Your task to perform on an android device: uninstall "Facebook Messenger" Image 0: 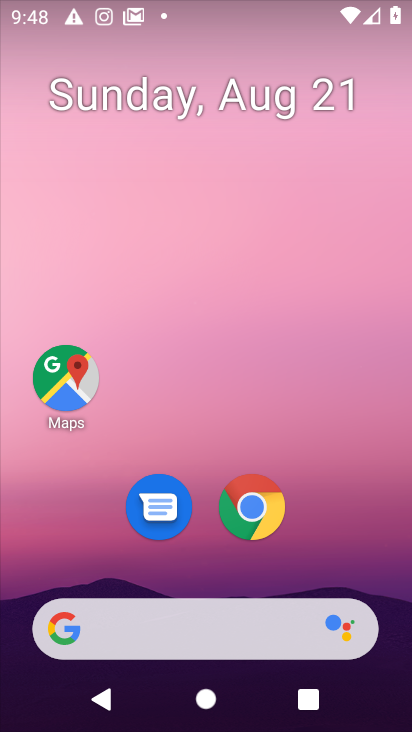
Step 0: drag from (215, 389) to (241, 23)
Your task to perform on an android device: uninstall "Facebook Messenger" Image 1: 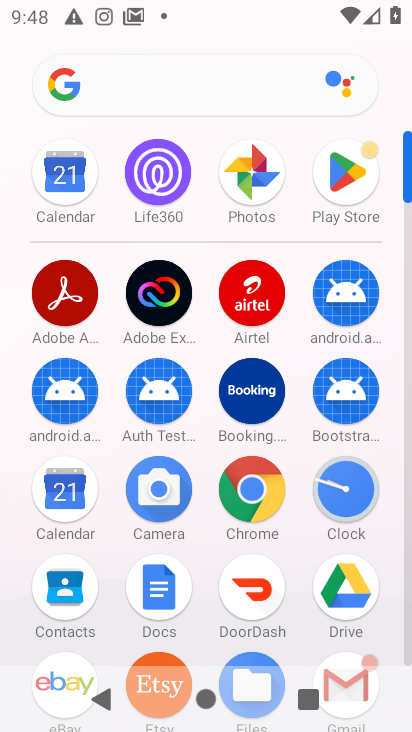
Step 1: click (352, 187)
Your task to perform on an android device: uninstall "Facebook Messenger" Image 2: 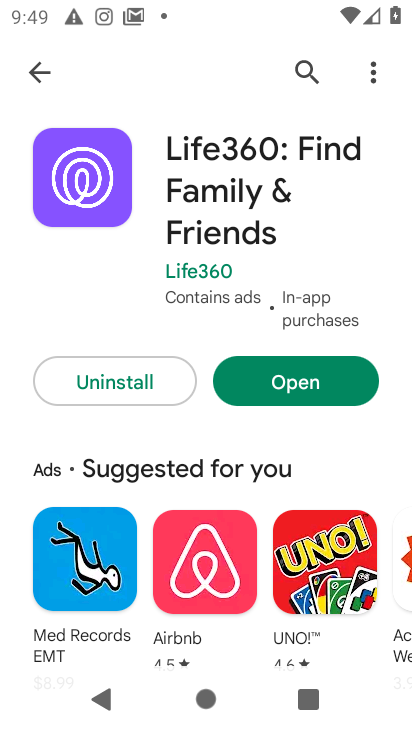
Step 2: click (34, 72)
Your task to perform on an android device: uninstall "Facebook Messenger" Image 3: 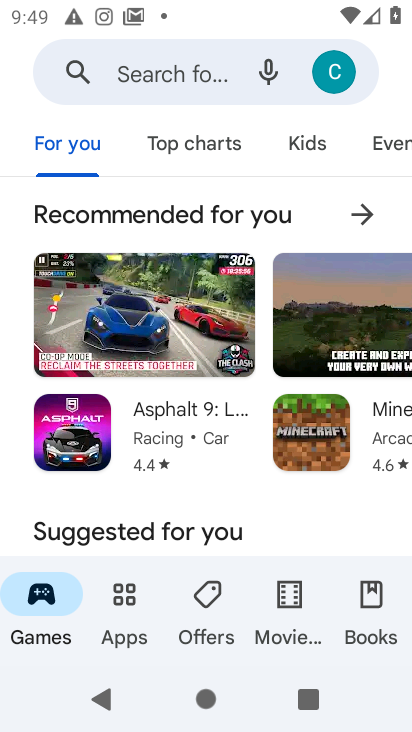
Step 3: click (157, 68)
Your task to perform on an android device: uninstall "Facebook Messenger" Image 4: 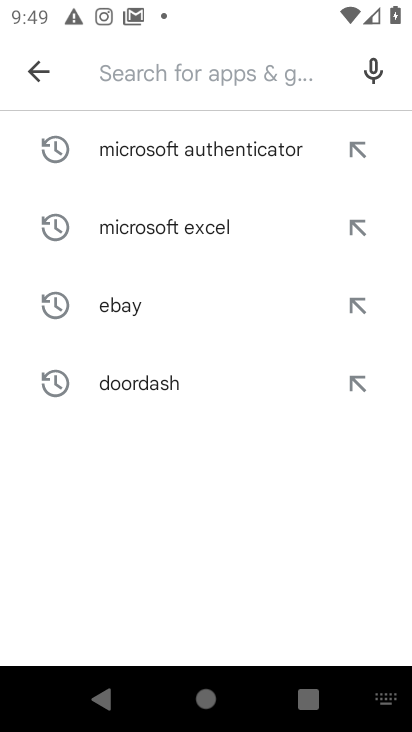
Step 4: type "Facebook Messenger"
Your task to perform on an android device: uninstall "Facebook Messenger" Image 5: 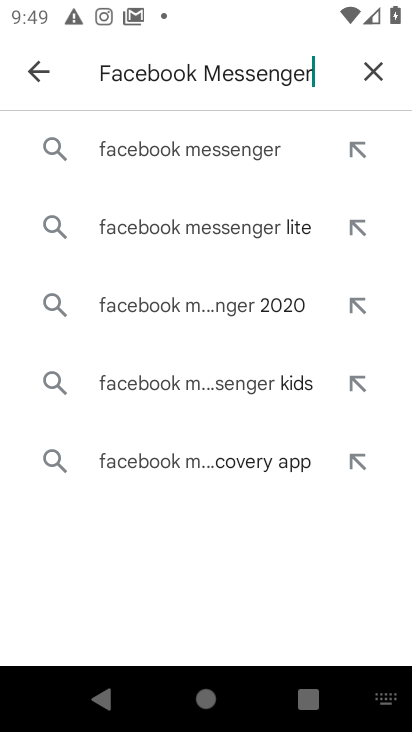
Step 5: click (175, 152)
Your task to perform on an android device: uninstall "Facebook Messenger" Image 6: 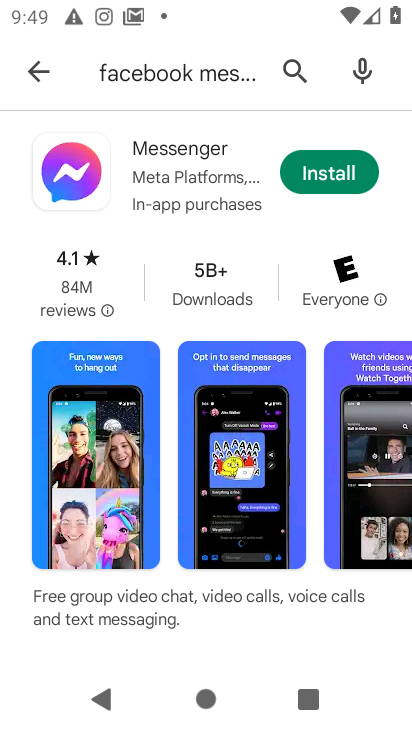
Step 6: click (322, 177)
Your task to perform on an android device: uninstall "Facebook Messenger" Image 7: 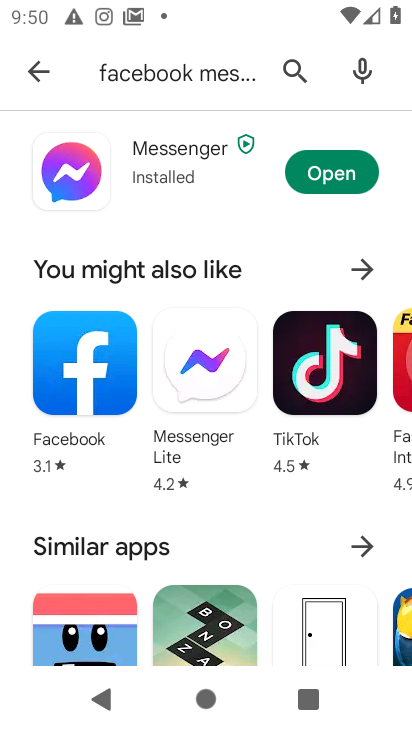
Step 7: click (181, 167)
Your task to perform on an android device: uninstall "Facebook Messenger" Image 8: 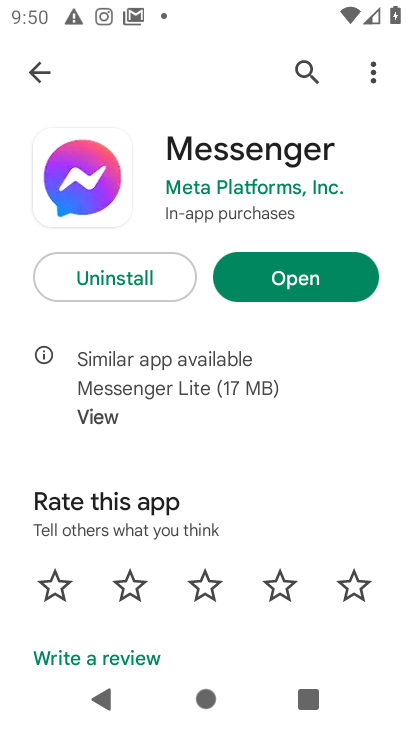
Step 8: click (94, 273)
Your task to perform on an android device: uninstall "Facebook Messenger" Image 9: 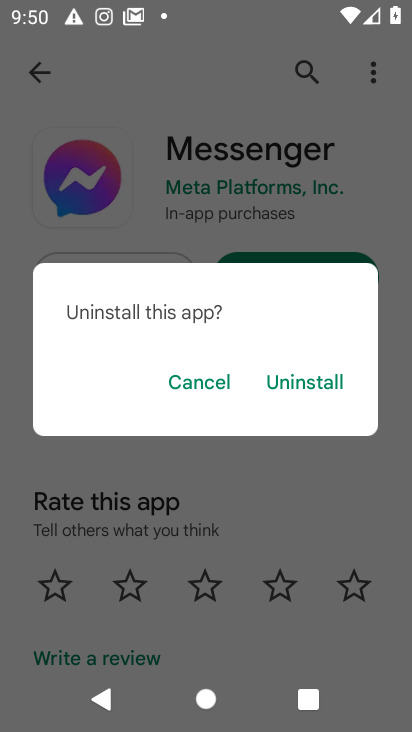
Step 9: click (300, 379)
Your task to perform on an android device: uninstall "Facebook Messenger" Image 10: 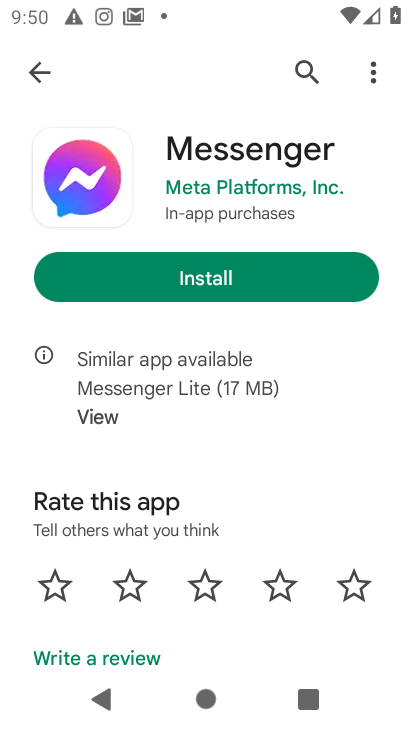
Step 10: task complete